Your task to perform on an android device: clear history in the chrome app Image 0: 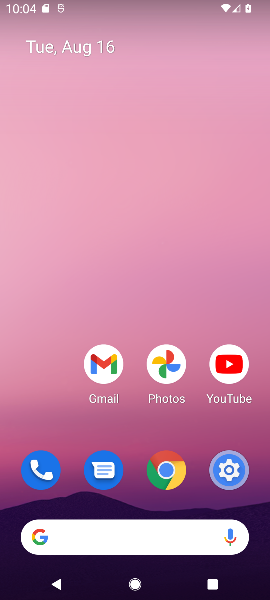
Step 0: click (170, 473)
Your task to perform on an android device: clear history in the chrome app Image 1: 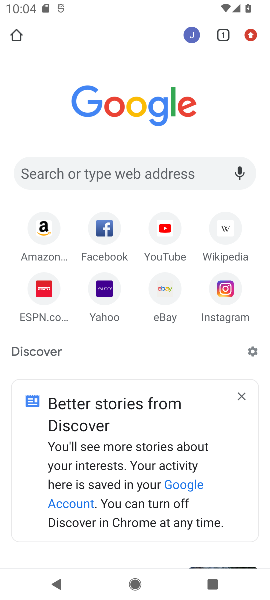
Step 1: click (252, 33)
Your task to perform on an android device: clear history in the chrome app Image 2: 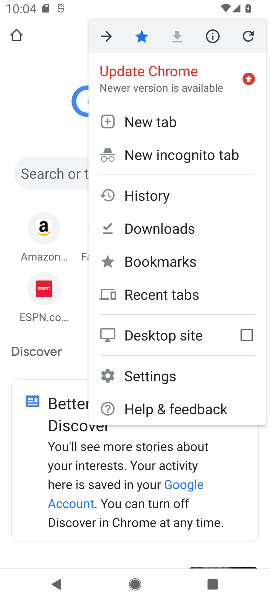
Step 2: click (148, 188)
Your task to perform on an android device: clear history in the chrome app Image 3: 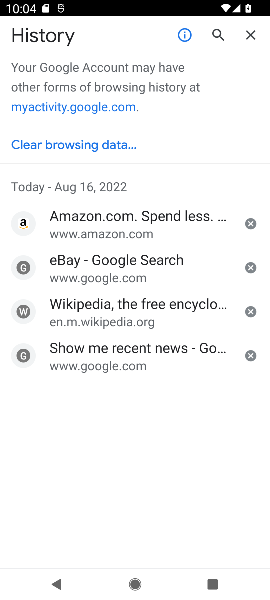
Step 3: click (111, 144)
Your task to perform on an android device: clear history in the chrome app Image 4: 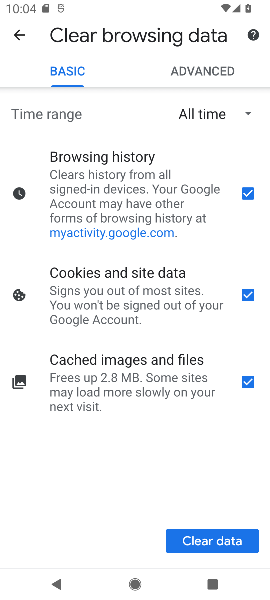
Step 4: click (250, 289)
Your task to perform on an android device: clear history in the chrome app Image 5: 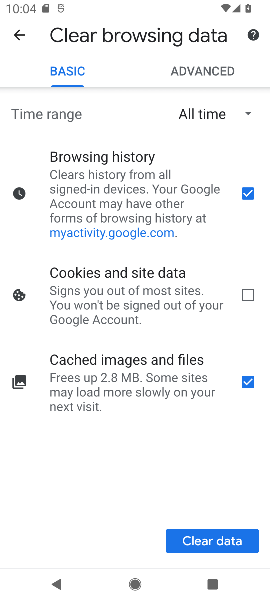
Step 5: click (247, 378)
Your task to perform on an android device: clear history in the chrome app Image 6: 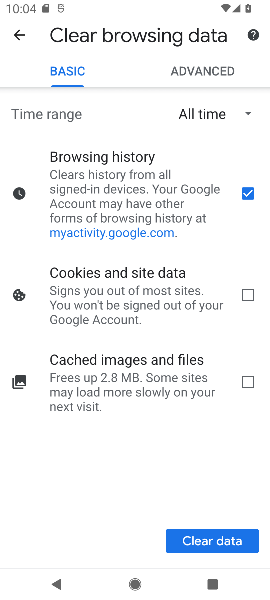
Step 6: click (223, 538)
Your task to perform on an android device: clear history in the chrome app Image 7: 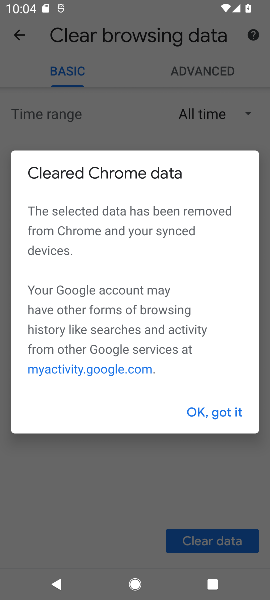
Step 7: click (227, 407)
Your task to perform on an android device: clear history in the chrome app Image 8: 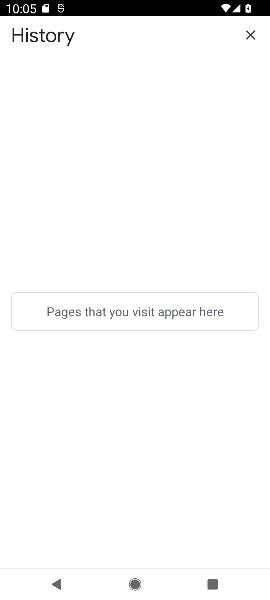
Step 8: task complete